Your task to perform on an android device: install app "AliExpress" Image 0: 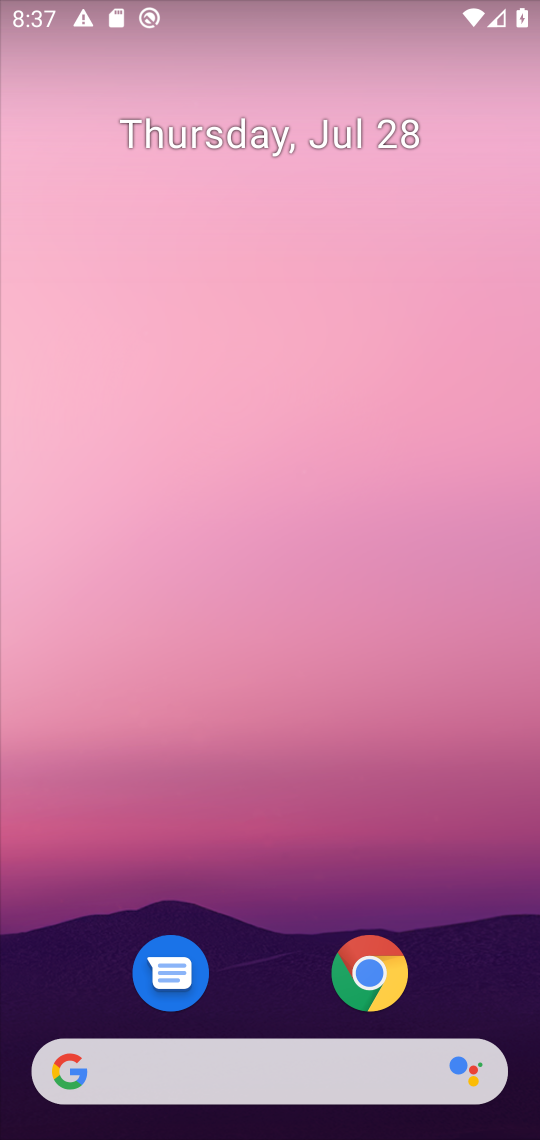
Step 0: drag from (357, 960) to (536, 295)
Your task to perform on an android device: install app "AliExpress" Image 1: 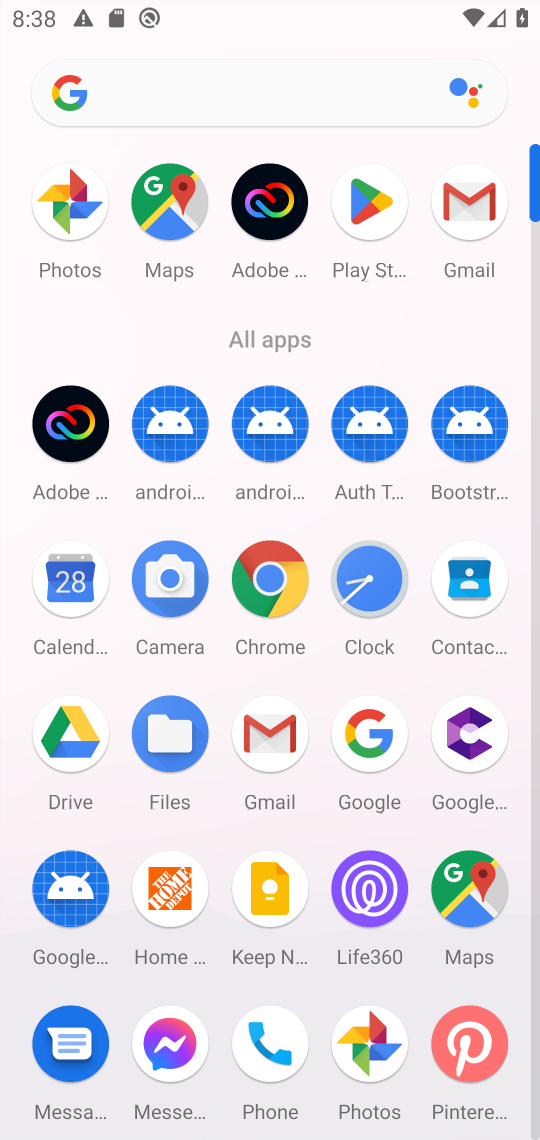
Step 1: click (369, 233)
Your task to perform on an android device: install app "AliExpress" Image 2: 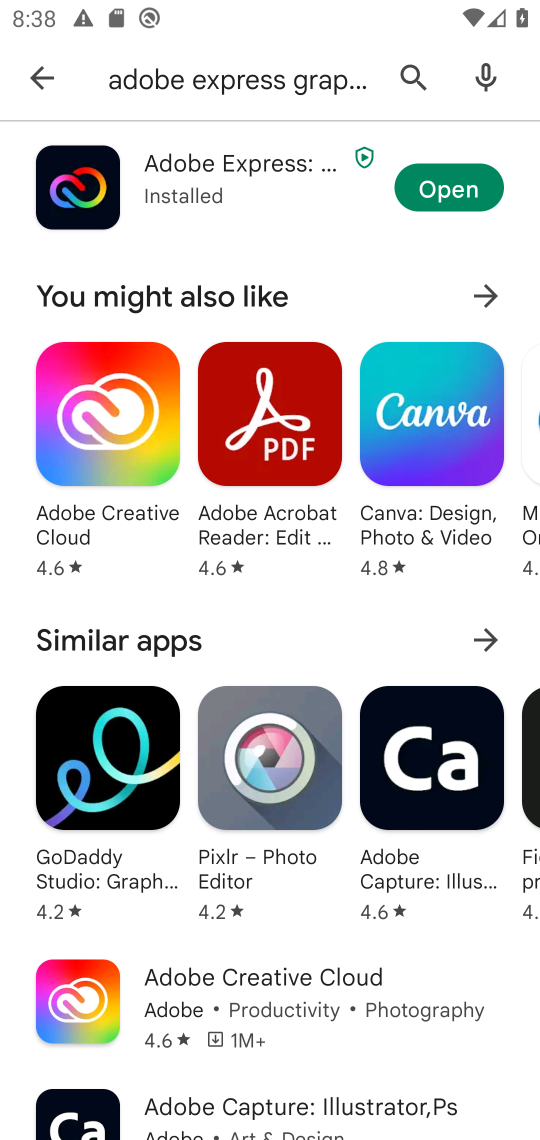
Step 2: click (45, 68)
Your task to perform on an android device: install app "AliExpress" Image 3: 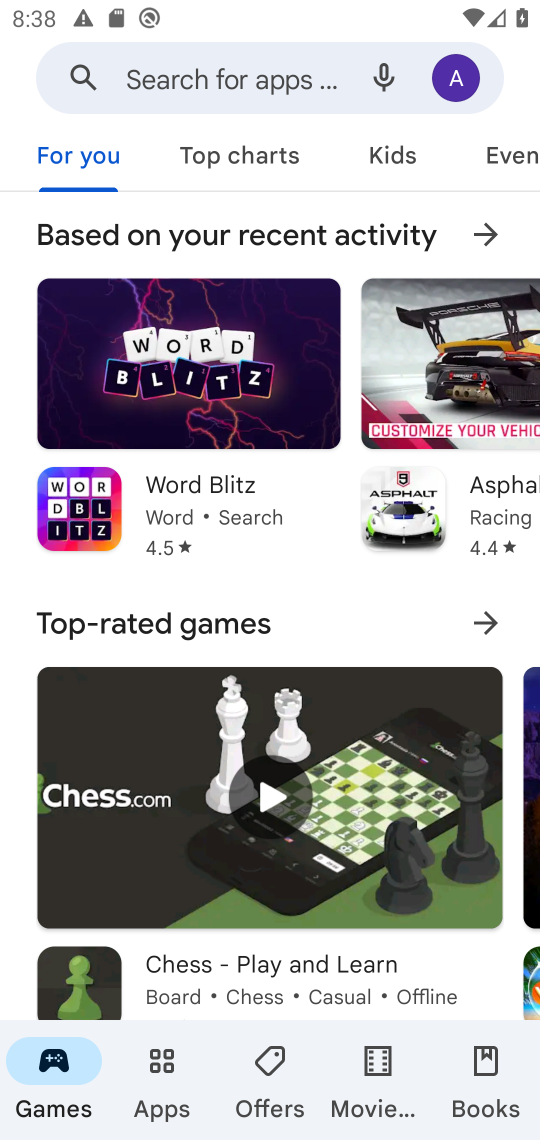
Step 3: click (229, 66)
Your task to perform on an android device: install app "AliExpress" Image 4: 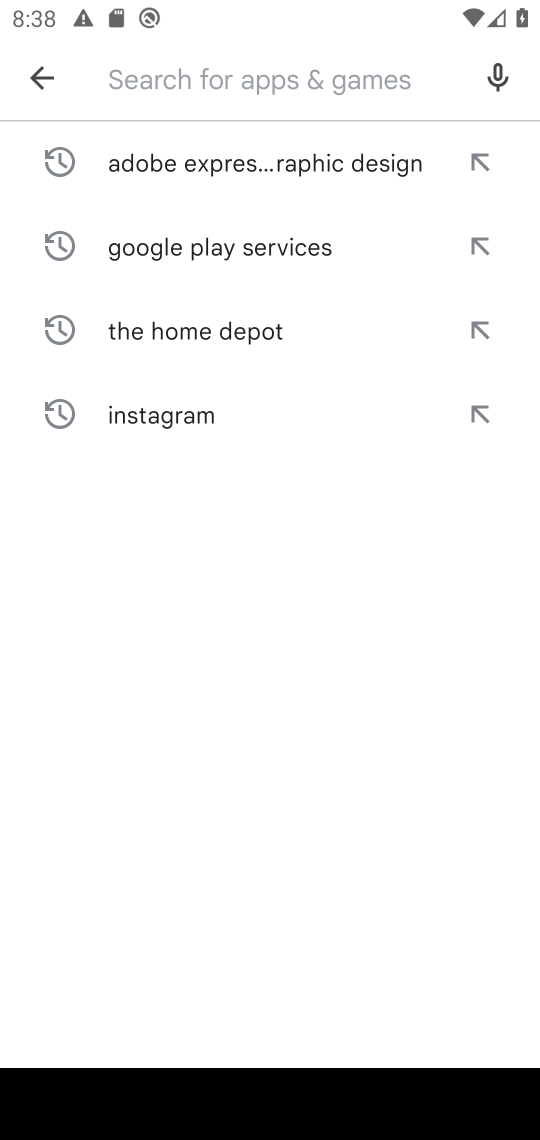
Step 4: type "AliExpress"
Your task to perform on an android device: install app "AliExpress" Image 5: 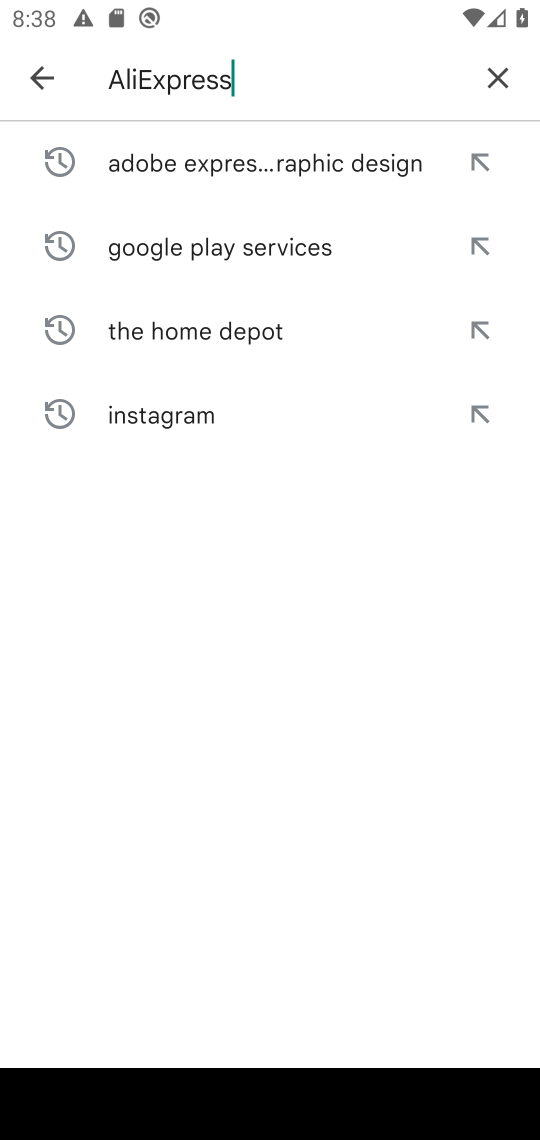
Step 5: type ""
Your task to perform on an android device: install app "AliExpress" Image 6: 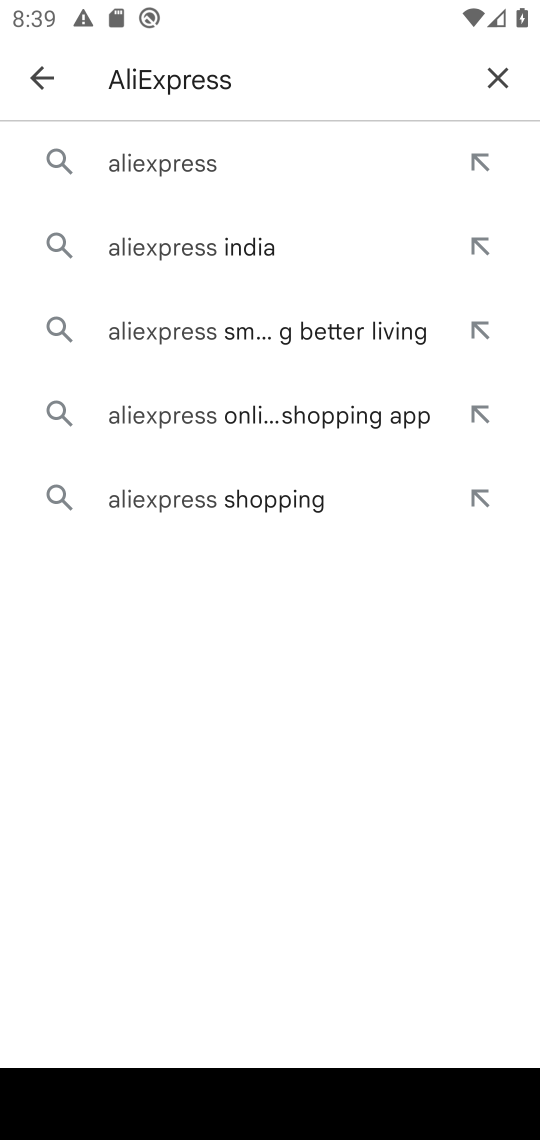
Step 6: click (294, 155)
Your task to perform on an android device: install app "AliExpress" Image 7: 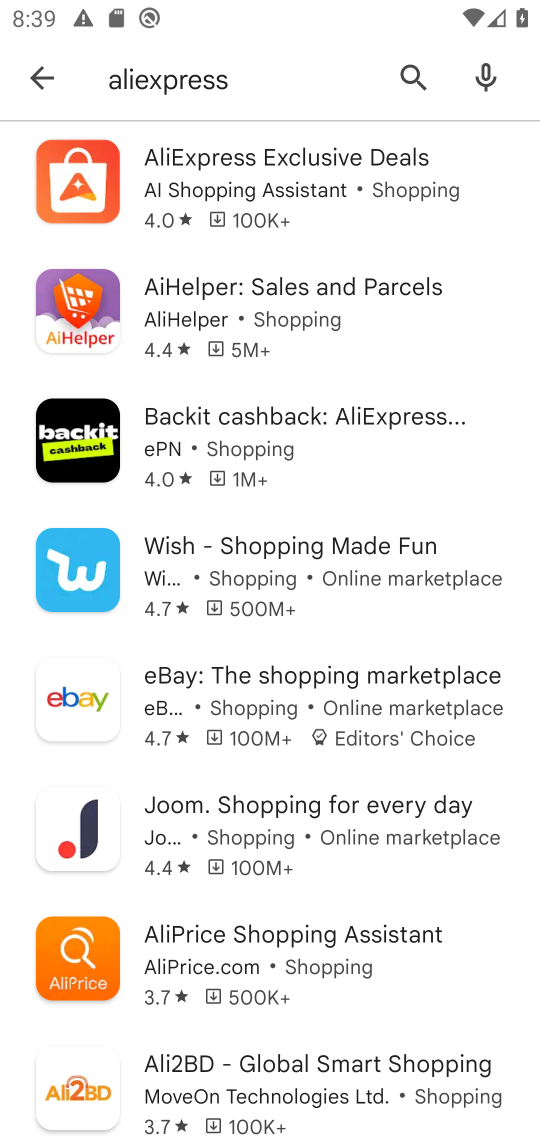
Step 7: click (209, 199)
Your task to perform on an android device: install app "AliExpress" Image 8: 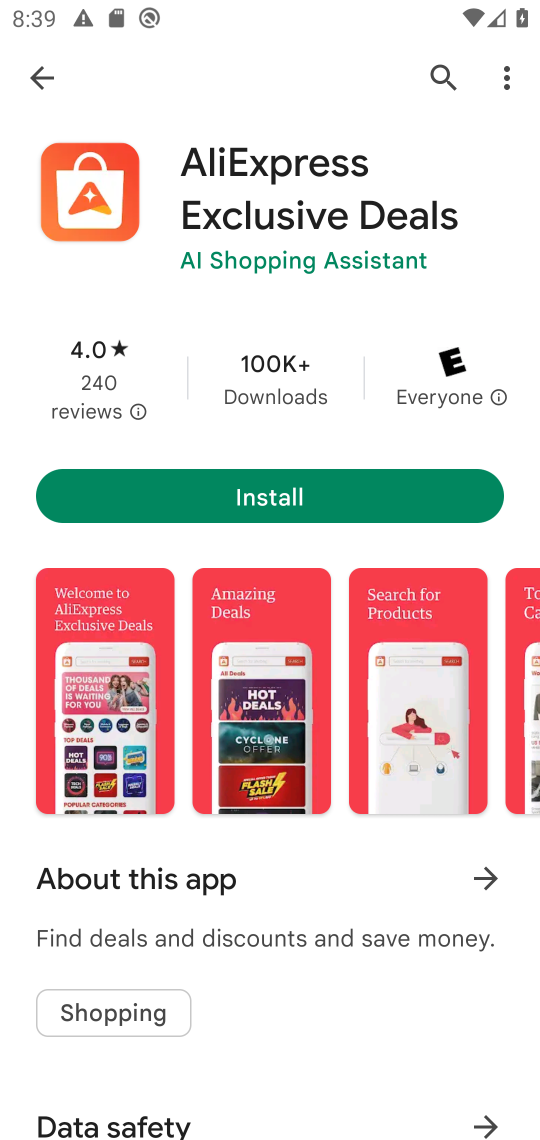
Step 8: click (385, 494)
Your task to perform on an android device: install app "AliExpress" Image 9: 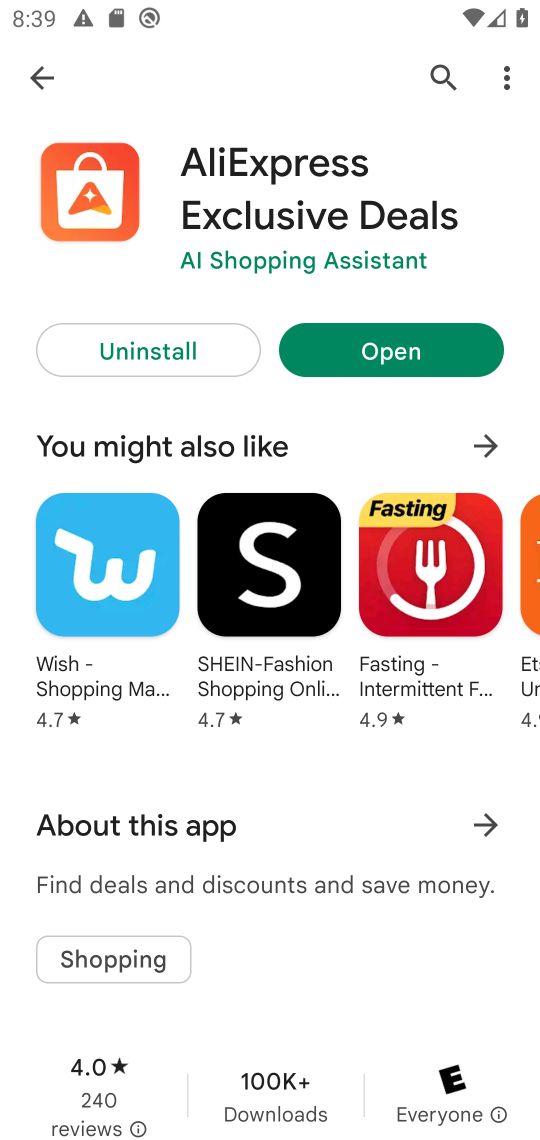
Step 9: task complete